Your task to perform on an android device: Open Google Maps Image 0: 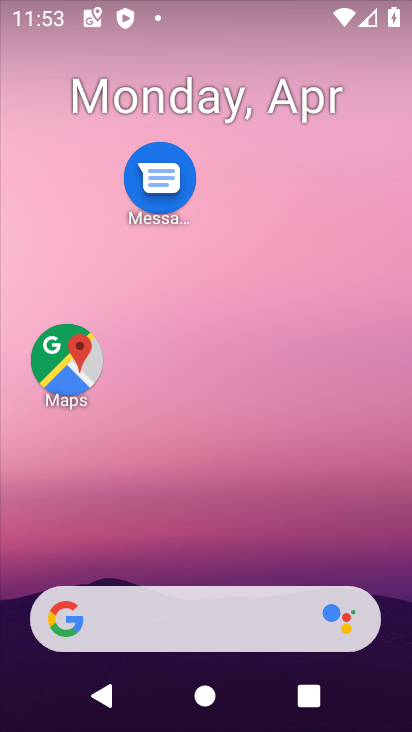
Step 0: drag from (207, 722) to (205, 91)
Your task to perform on an android device: Open Google Maps Image 1: 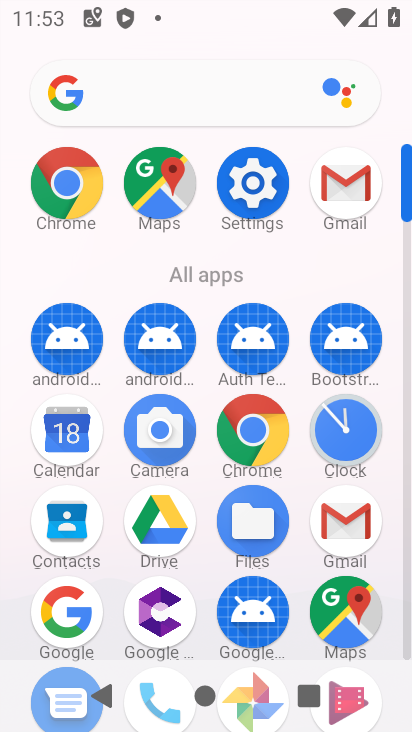
Step 1: click (347, 615)
Your task to perform on an android device: Open Google Maps Image 2: 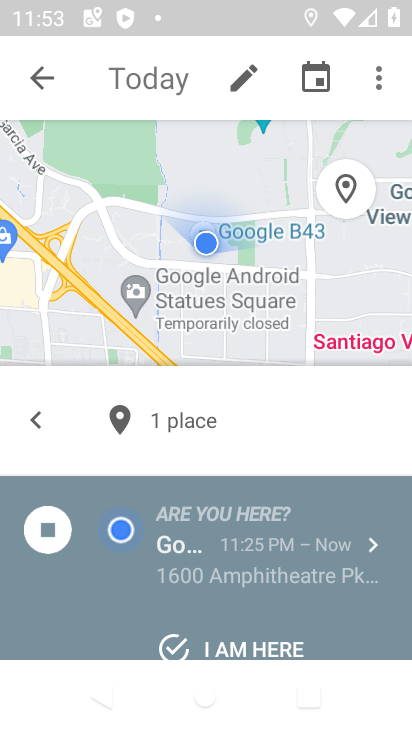
Step 2: task complete